Your task to perform on an android device: turn on airplane mode Image 0: 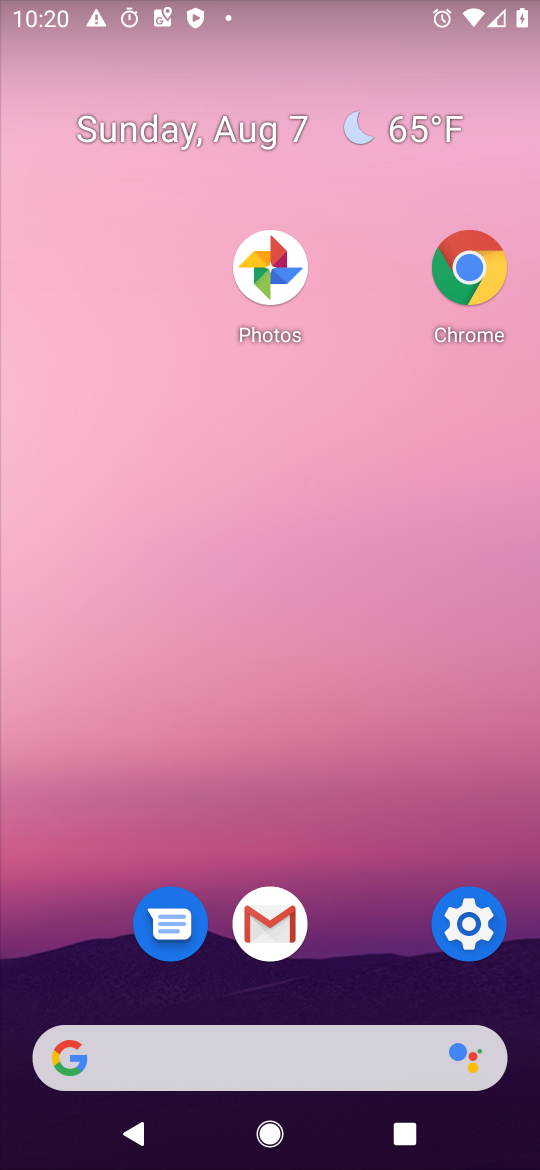
Step 0: press home button
Your task to perform on an android device: turn on airplane mode Image 1: 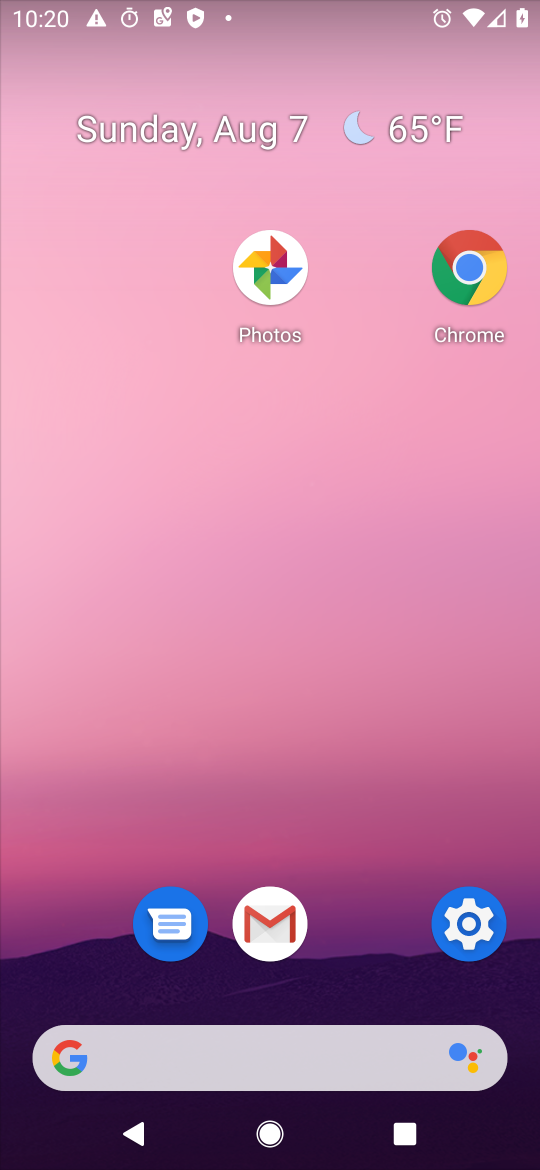
Step 1: drag from (355, 1078) to (236, 355)
Your task to perform on an android device: turn on airplane mode Image 2: 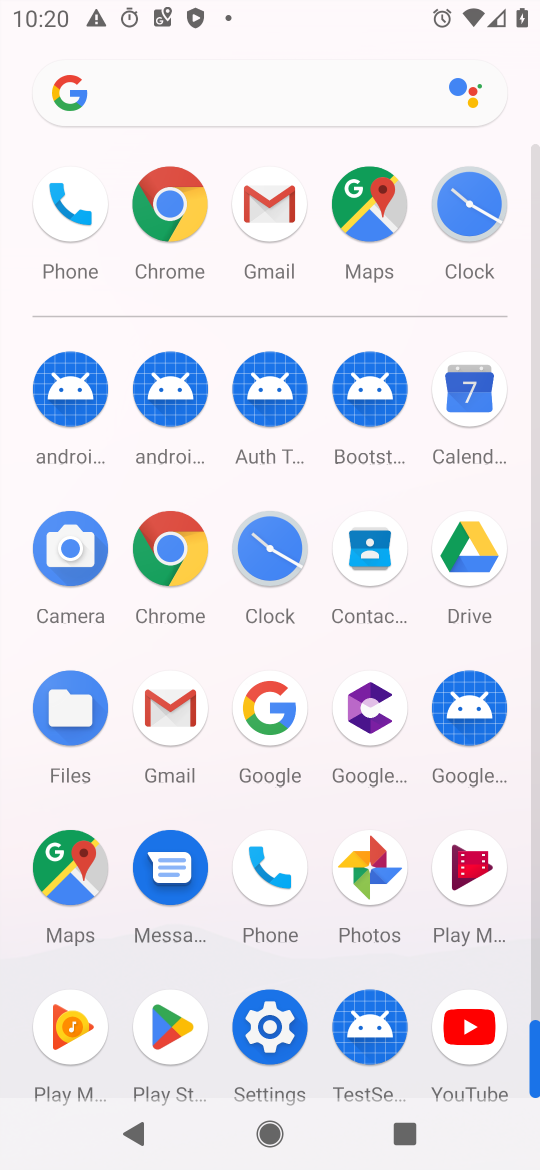
Step 2: click (265, 1016)
Your task to perform on an android device: turn on airplane mode Image 3: 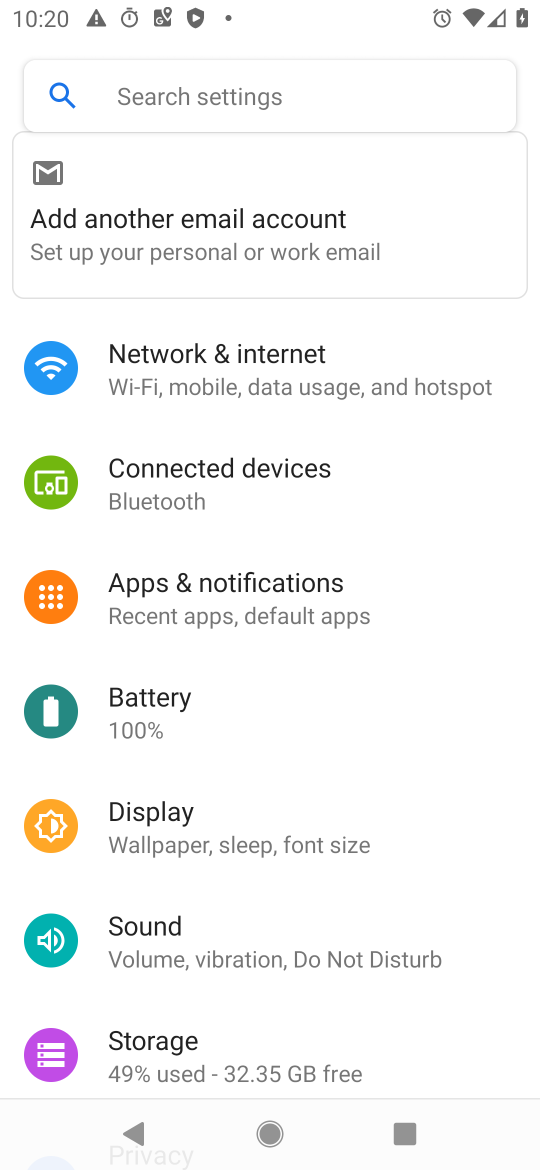
Step 3: click (191, 369)
Your task to perform on an android device: turn on airplane mode Image 4: 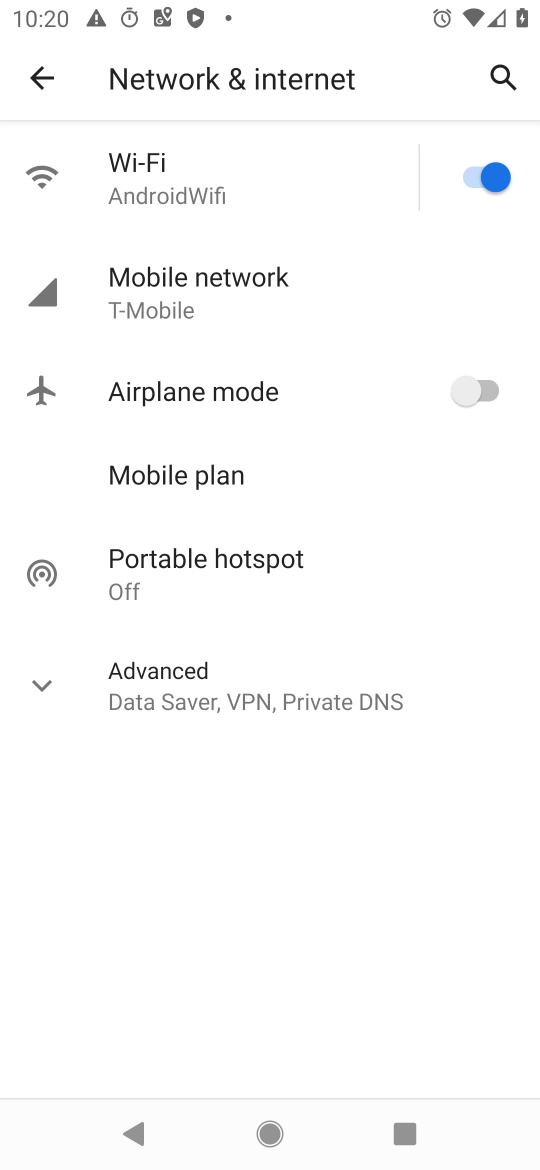
Step 4: click (223, 395)
Your task to perform on an android device: turn on airplane mode Image 5: 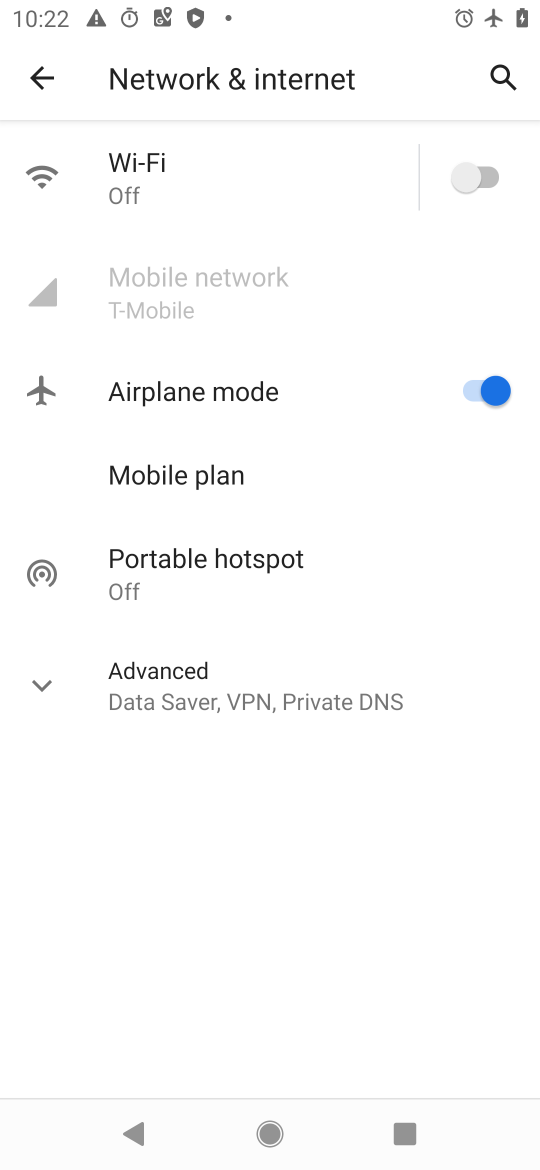
Step 5: task complete